Your task to perform on an android device: Open Youtube and go to "Your channel" Image 0: 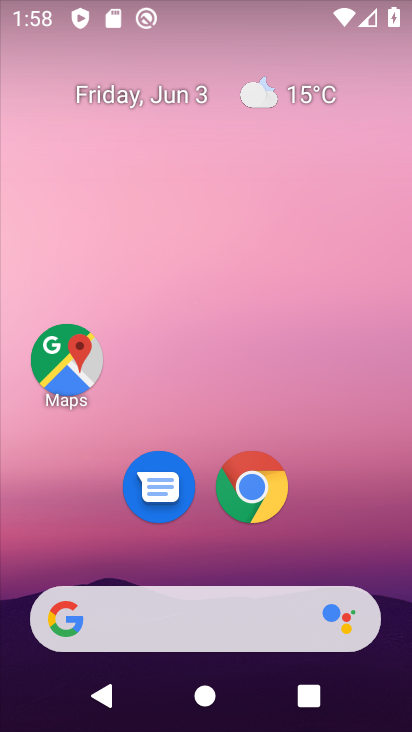
Step 0: drag from (266, 343) to (251, 6)
Your task to perform on an android device: Open Youtube and go to "Your channel" Image 1: 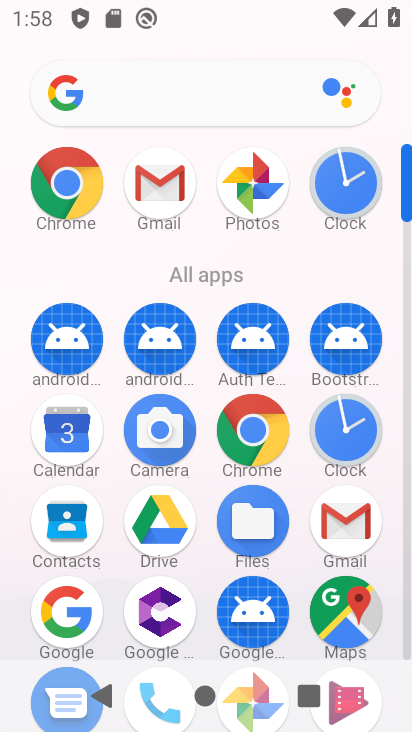
Step 1: drag from (264, 666) to (279, 181)
Your task to perform on an android device: Open Youtube and go to "Your channel" Image 2: 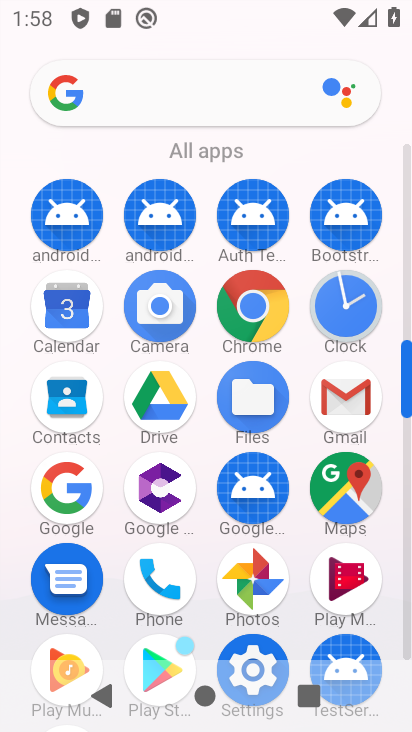
Step 2: drag from (291, 583) to (214, 118)
Your task to perform on an android device: Open Youtube and go to "Your channel" Image 3: 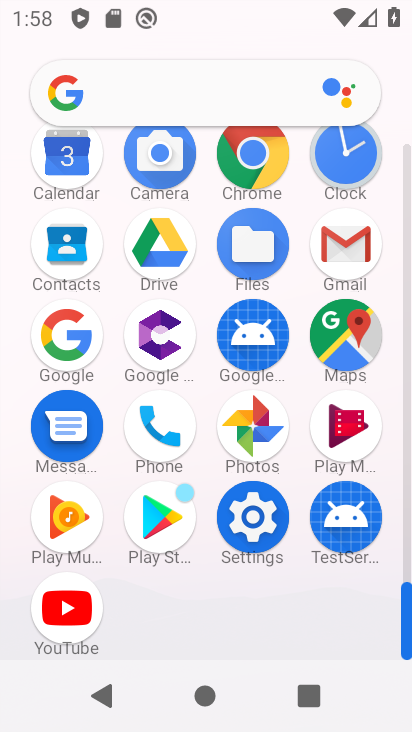
Step 3: click (83, 617)
Your task to perform on an android device: Open Youtube and go to "Your channel" Image 4: 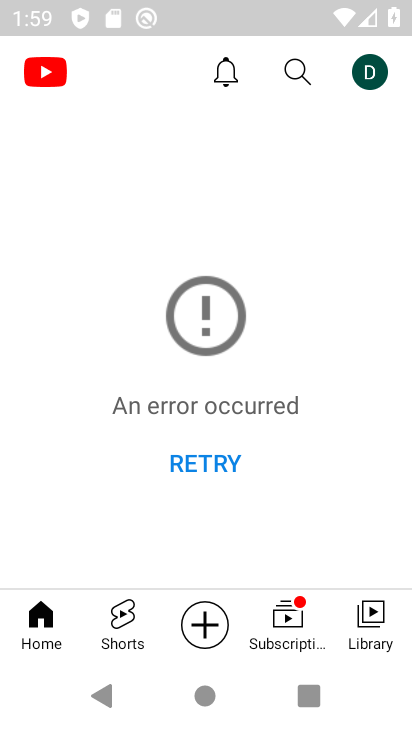
Step 4: click (377, 76)
Your task to perform on an android device: Open Youtube and go to "Your channel" Image 5: 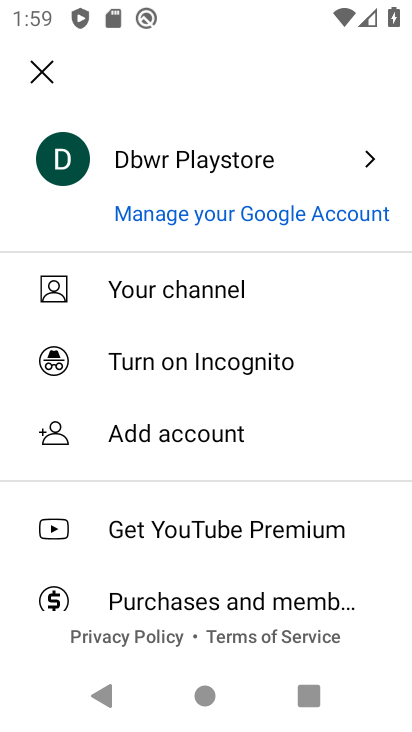
Step 5: click (206, 293)
Your task to perform on an android device: Open Youtube and go to "Your channel" Image 6: 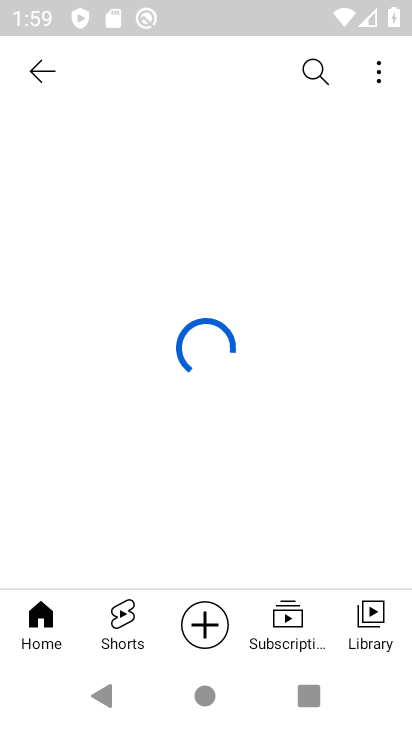
Step 6: task complete